Your task to perform on an android device: see sites visited before in the chrome app Image 0: 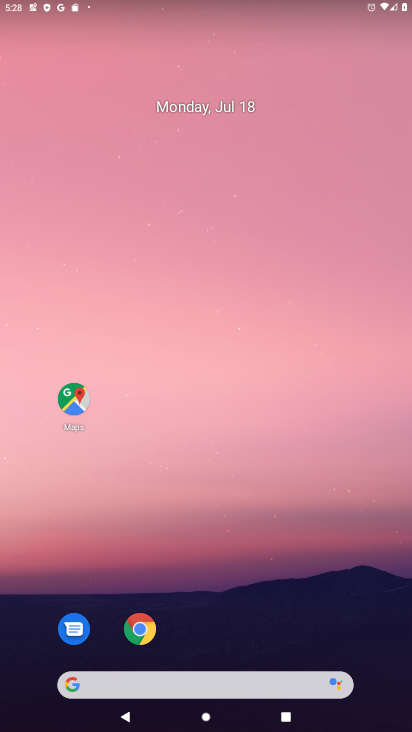
Step 0: drag from (297, 618) to (157, 19)
Your task to perform on an android device: see sites visited before in the chrome app Image 1: 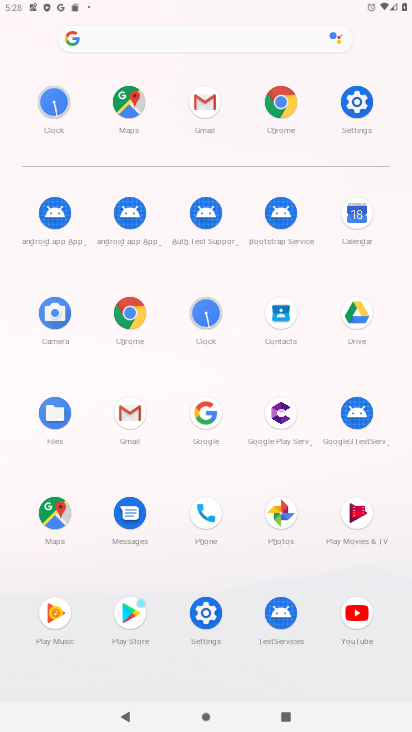
Step 1: click (285, 104)
Your task to perform on an android device: see sites visited before in the chrome app Image 2: 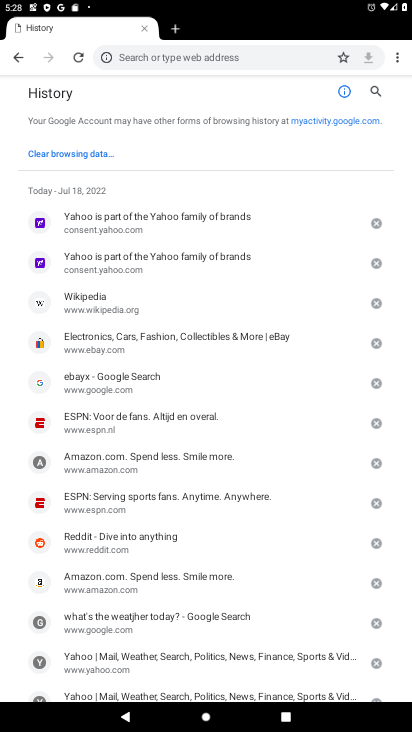
Step 2: task complete